Your task to perform on an android device: Open location settings Image 0: 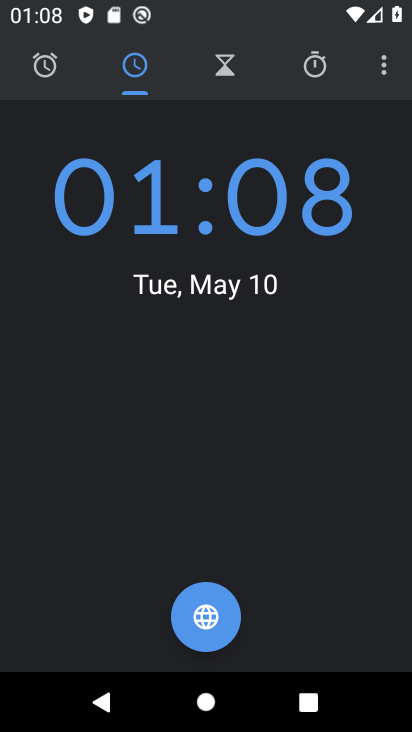
Step 0: press home button
Your task to perform on an android device: Open location settings Image 1: 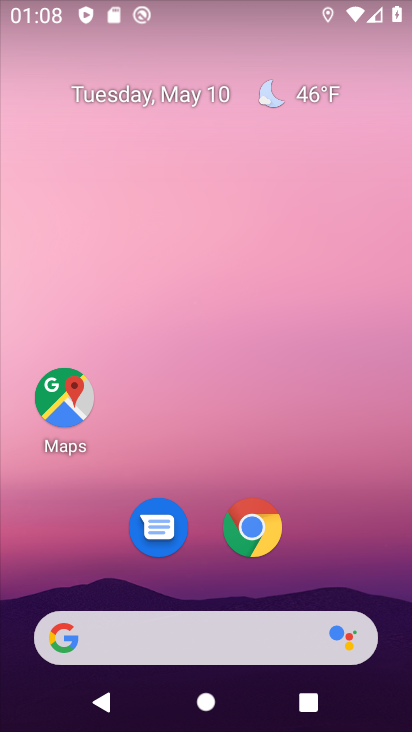
Step 1: drag from (354, 478) to (306, 122)
Your task to perform on an android device: Open location settings Image 2: 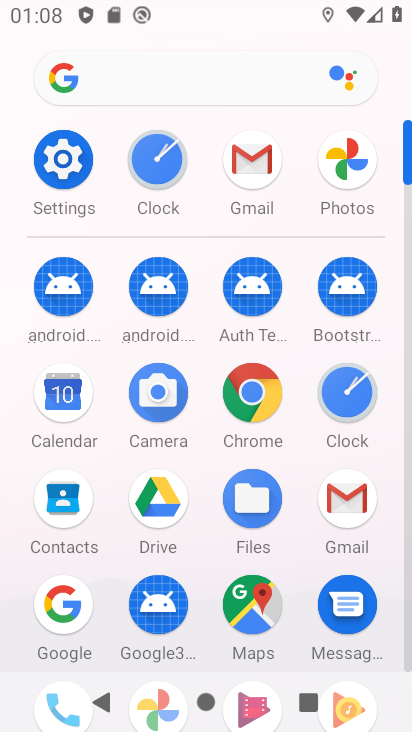
Step 2: click (79, 178)
Your task to perform on an android device: Open location settings Image 3: 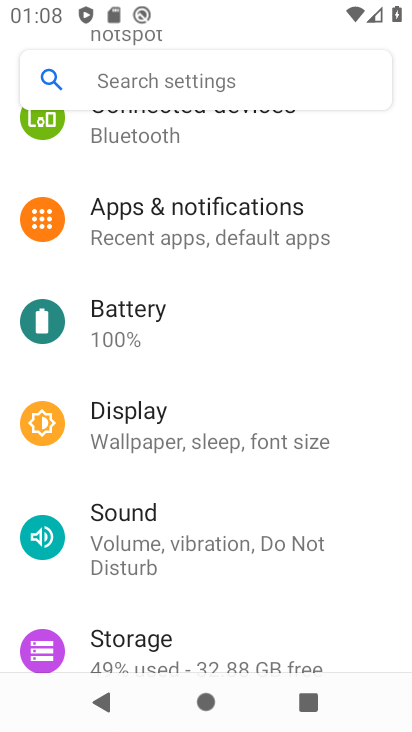
Step 3: drag from (167, 567) to (154, 215)
Your task to perform on an android device: Open location settings Image 4: 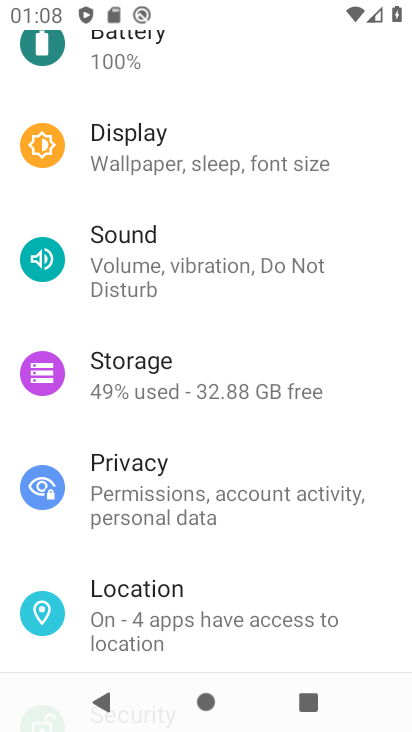
Step 4: click (141, 608)
Your task to perform on an android device: Open location settings Image 5: 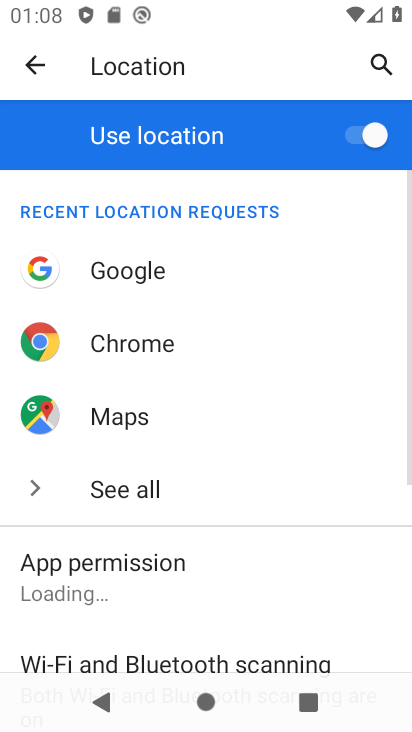
Step 5: task complete